Your task to perform on an android device: turn off wifi Image 0: 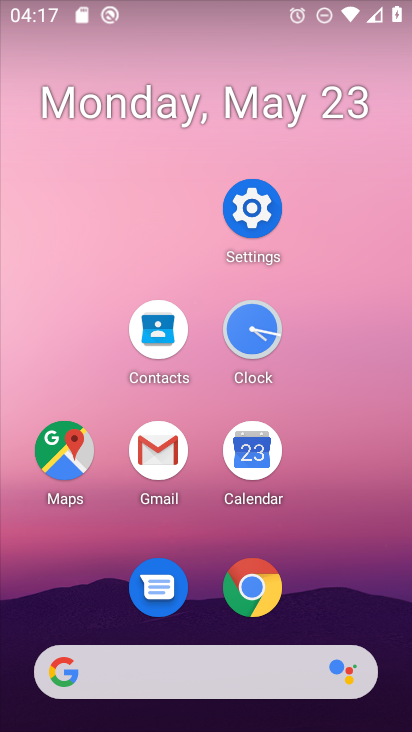
Step 0: click (249, 244)
Your task to perform on an android device: turn off wifi Image 1: 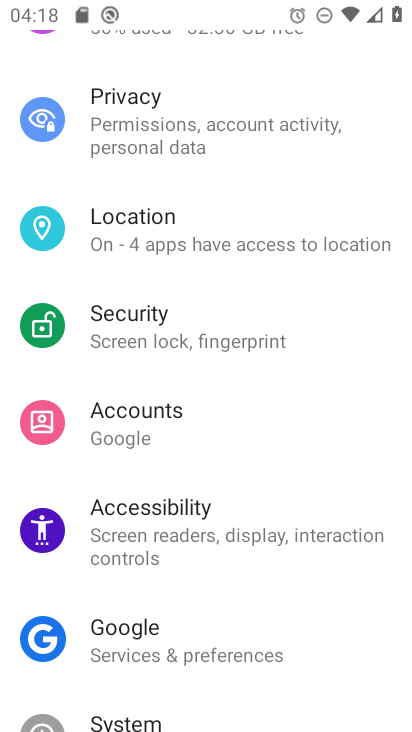
Step 1: drag from (203, 155) to (15, 582)
Your task to perform on an android device: turn off wifi Image 2: 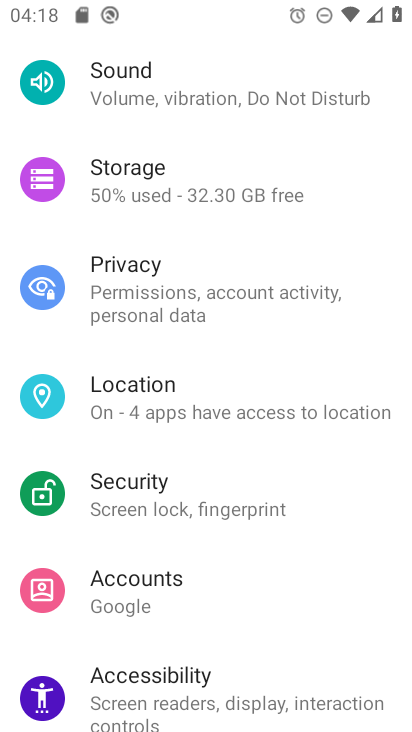
Step 2: drag from (278, 346) to (254, 691)
Your task to perform on an android device: turn off wifi Image 3: 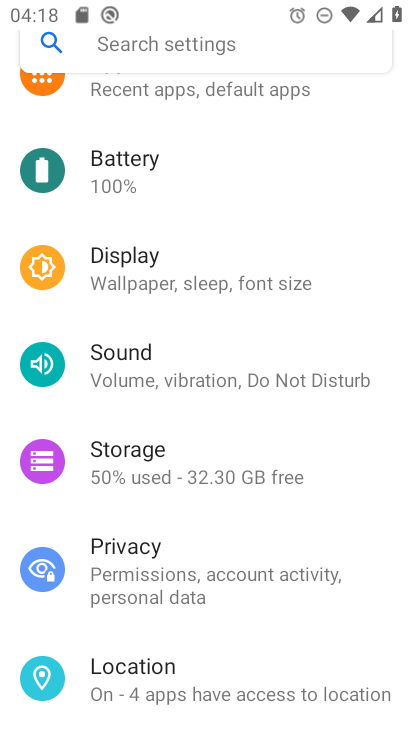
Step 3: drag from (184, 164) to (188, 636)
Your task to perform on an android device: turn off wifi Image 4: 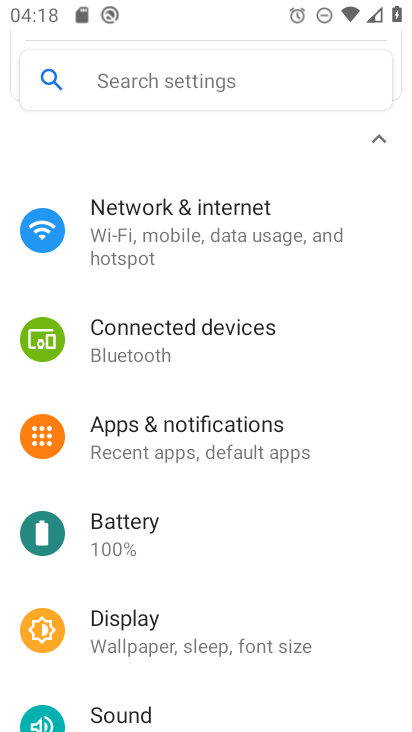
Step 4: click (221, 242)
Your task to perform on an android device: turn off wifi Image 5: 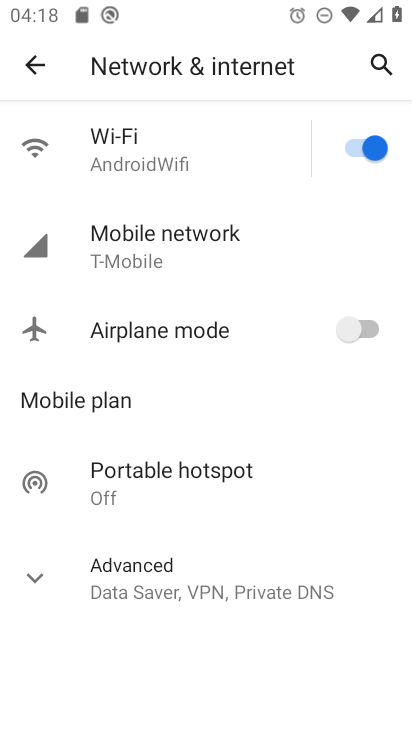
Step 5: click (360, 150)
Your task to perform on an android device: turn off wifi Image 6: 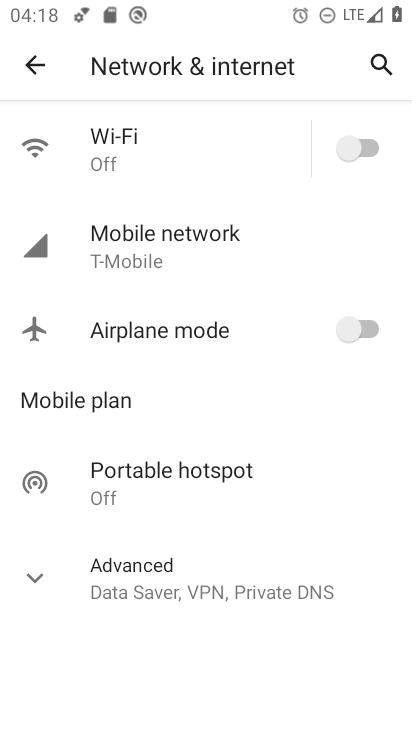
Step 6: task complete